Your task to perform on an android device: Open calendar and show me the third week of next month Image 0: 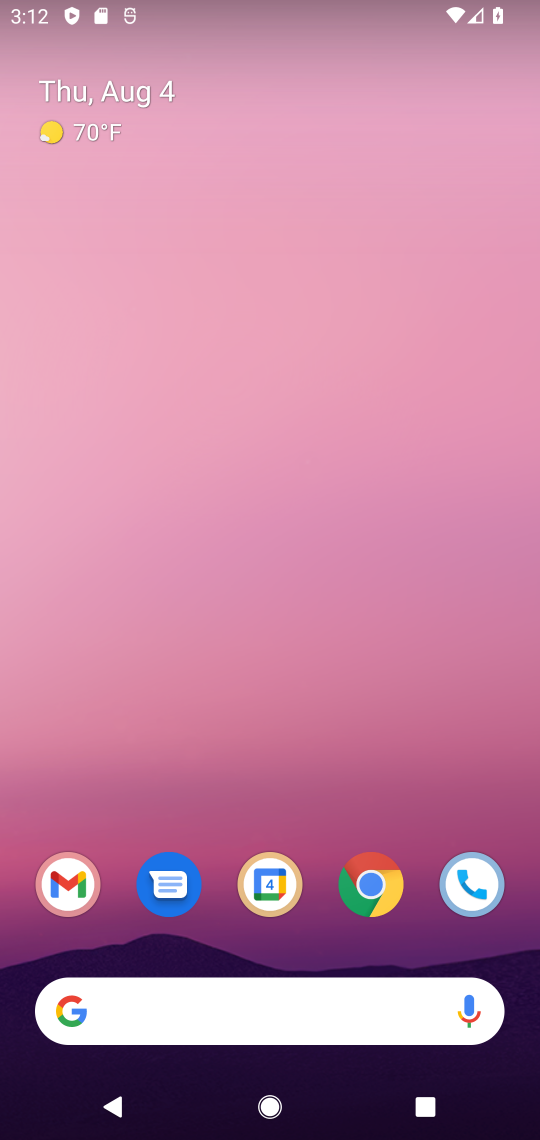
Step 0: drag from (356, 974) to (337, 448)
Your task to perform on an android device: Open calendar and show me the third week of next month Image 1: 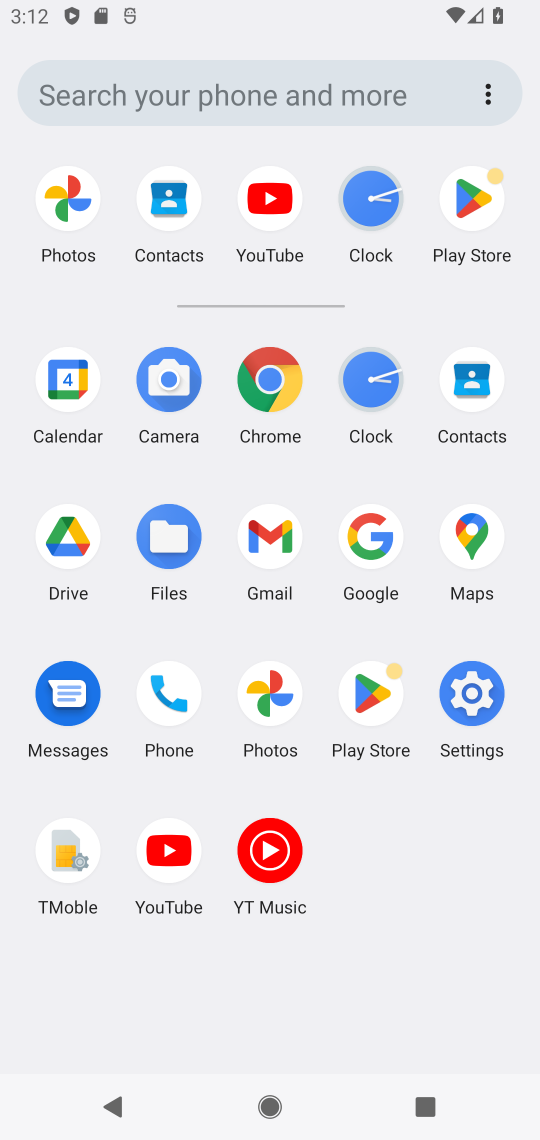
Step 1: click (67, 368)
Your task to perform on an android device: Open calendar and show me the third week of next month Image 2: 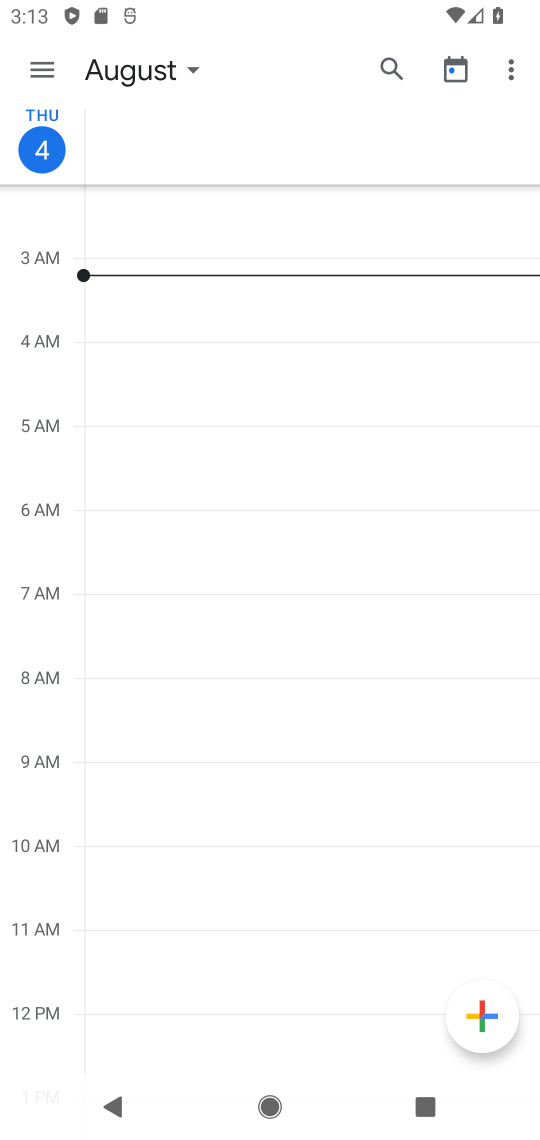
Step 2: click (26, 68)
Your task to perform on an android device: Open calendar and show me the third week of next month Image 3: 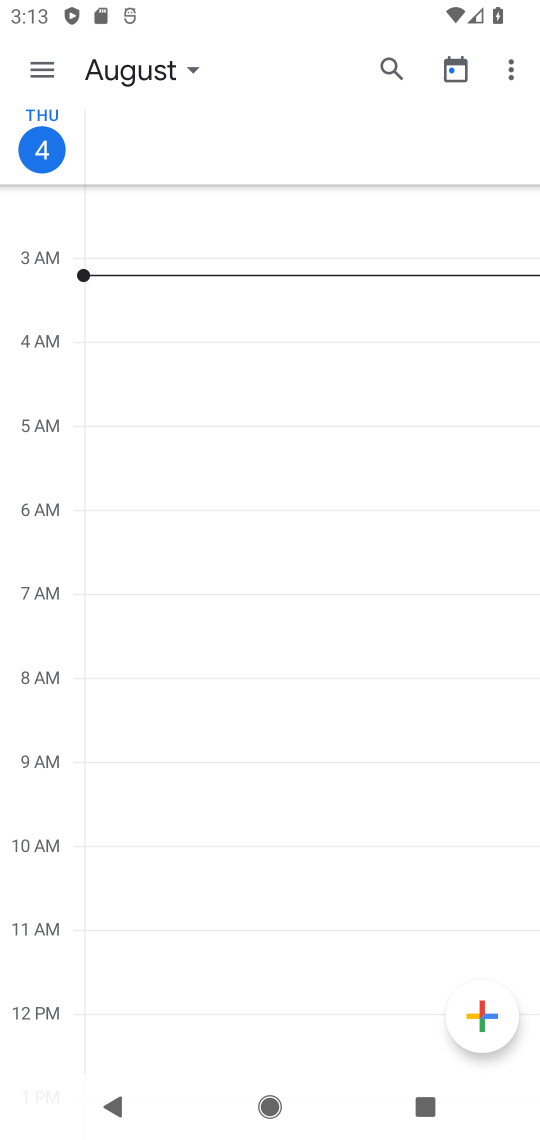
Step 3: click (36, 75)
Your task to perform on an android device: Open calendar and show me the third week of next month Image 4: 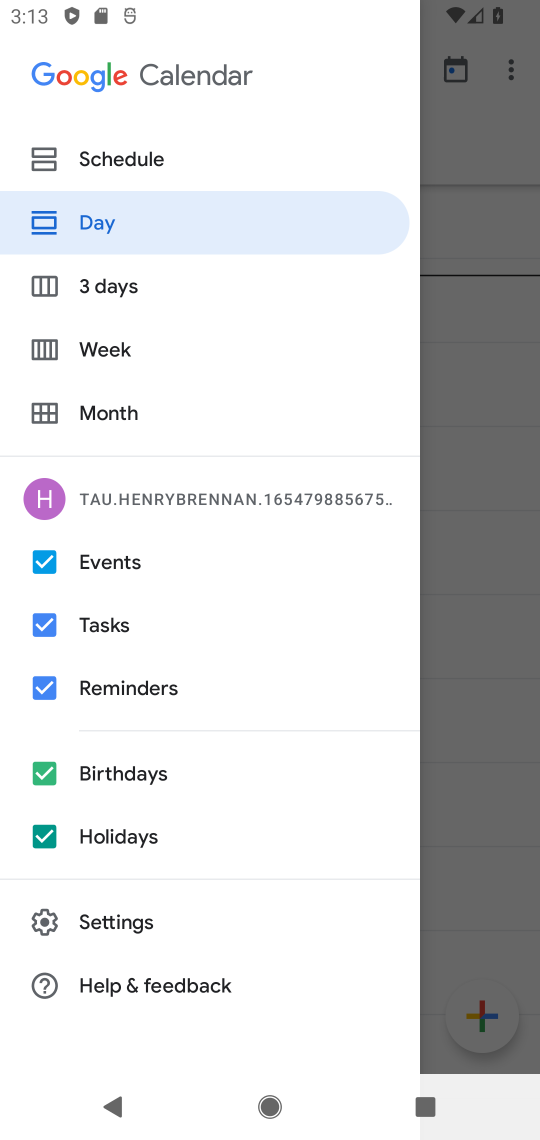
Step 4: click (133, 363)
Your task to perform on an android device: Open calendar and show me the third week of next month Image 5: 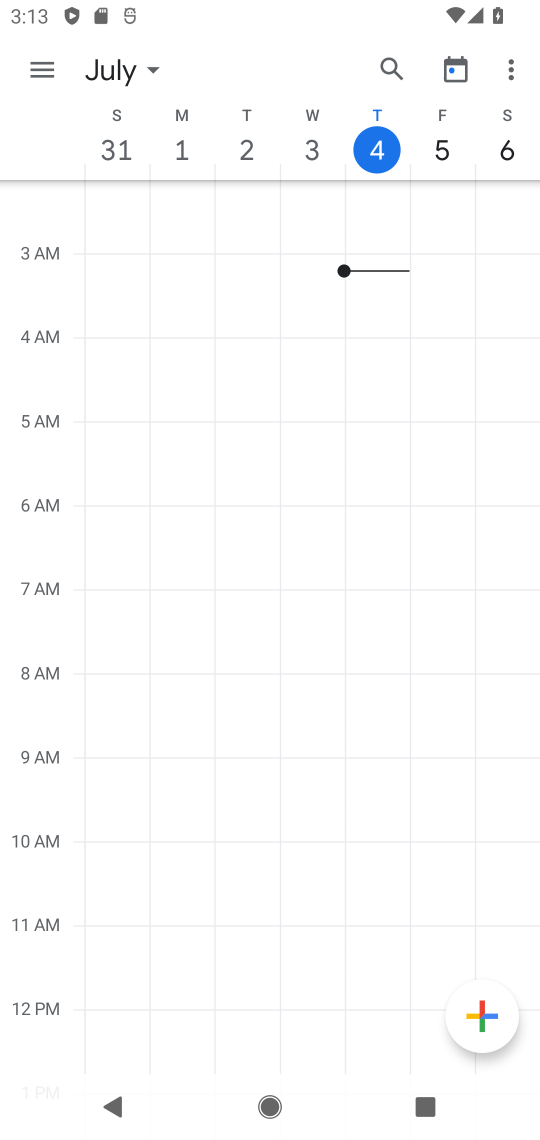
Step 5: task complete